Your task to perform on an android device: open app "Gboard" Image 0: 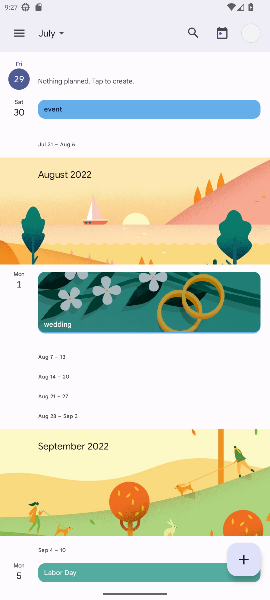
Step 0: press home button
Your task to perform on an android device: open app "Gboard" Image 1: 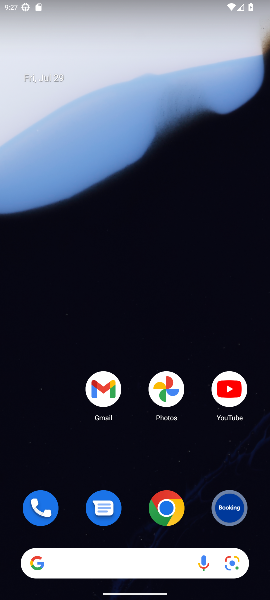
Step 1: drag from (158, 553) to (159, 12)
Your task to perform on an android device: open app "Gboard" Image 2: 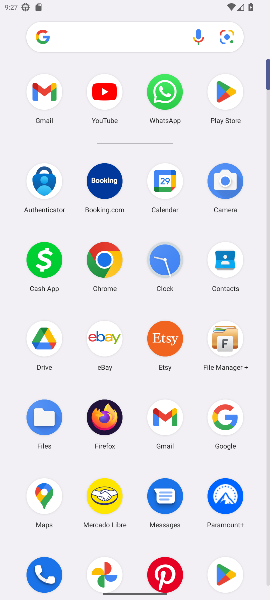
Step 2: click (219, 95)
Your task to perform on an android device: open app "Gboard" Image 3: 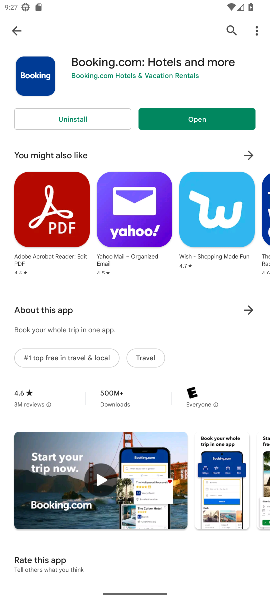
Step 3: press back button
Your task to perform on an android device: open app "Gboard" Image 4: 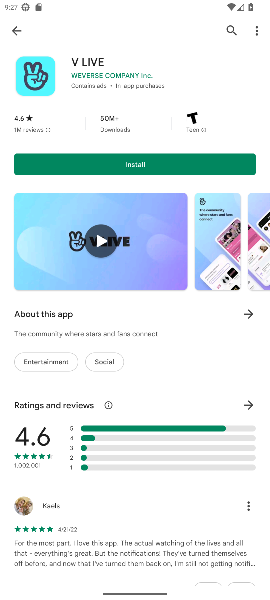
Step 4: click (228, 25)
Your task to perform on an android device: open app "Gboard" Image 5: 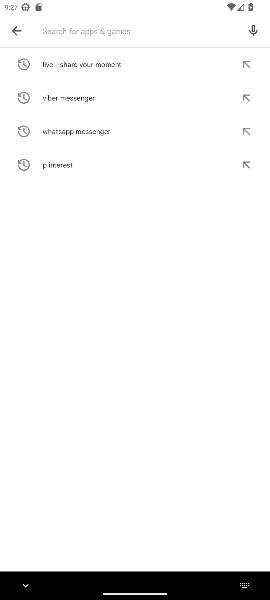
Step 5: type "gboard"
Your task to perform on an android device: open app "Gboard" Image 6: 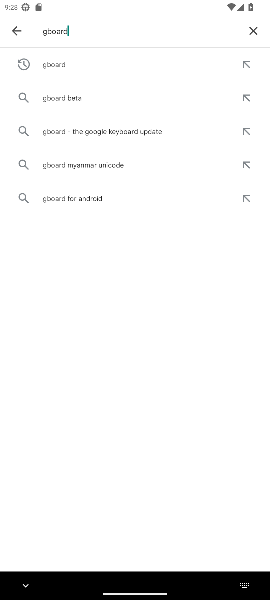
Step 6: click (60, 68)
Your task to perform on an android device: open app "Gboard" Image 7: 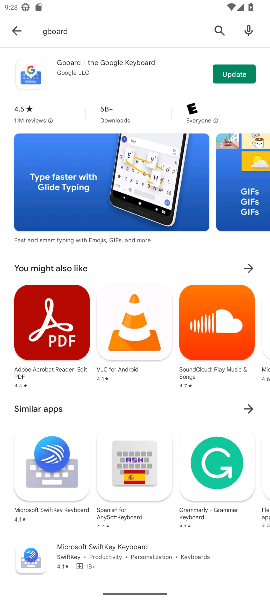
Step 7: task complete